Your task to perform on an android device: turn off location history Image 0: 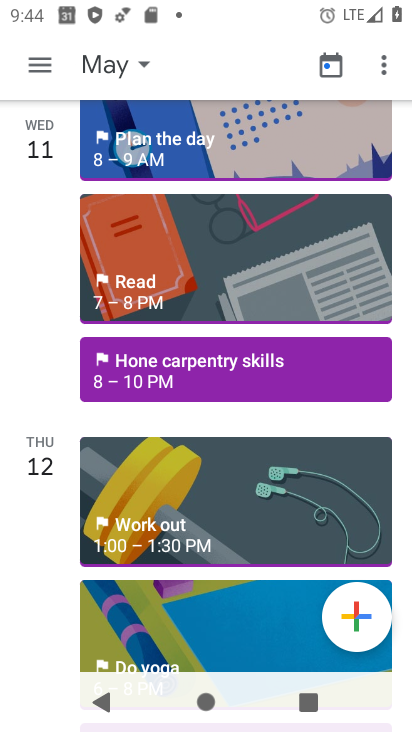
Step 0: press home button
Your task to perform on an android device: turn off location history Image 1: 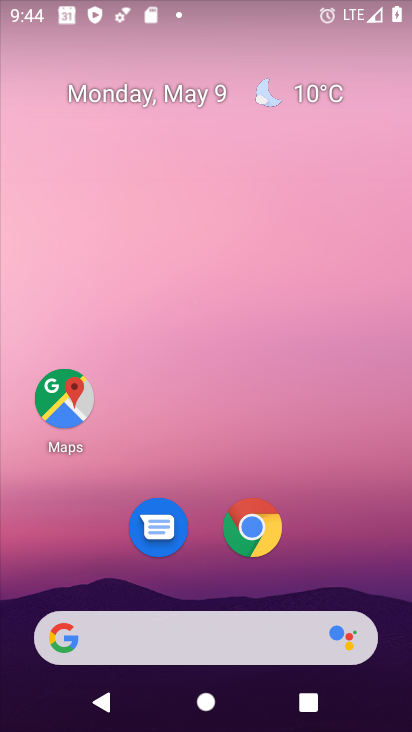
Step 1: click (63, 396)
Your task to perform on an android device: turn off location history Image 2: 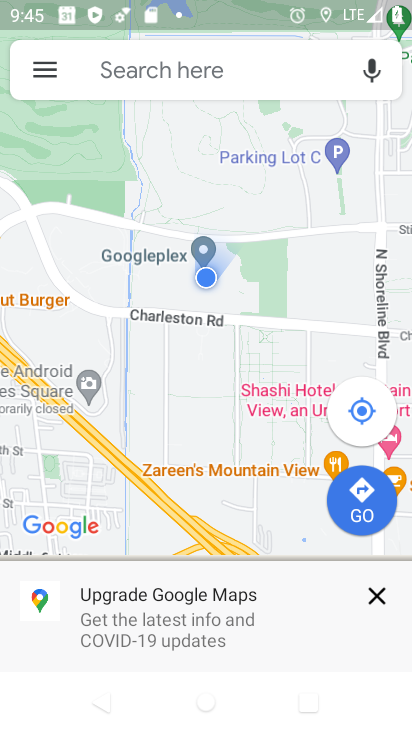
Step 2: click (43, 74)
Your task to perform on an android device: turn off location history Image 3: 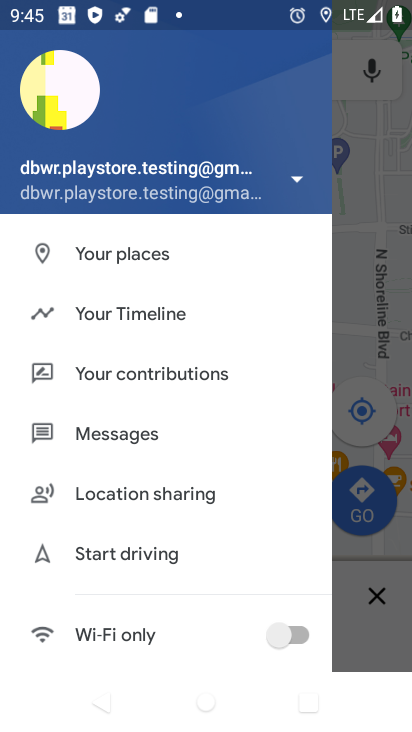
Step 3: drag from (168, 631) to (202, 80)
Your task to perform on an android device: turn off location history Image 4: 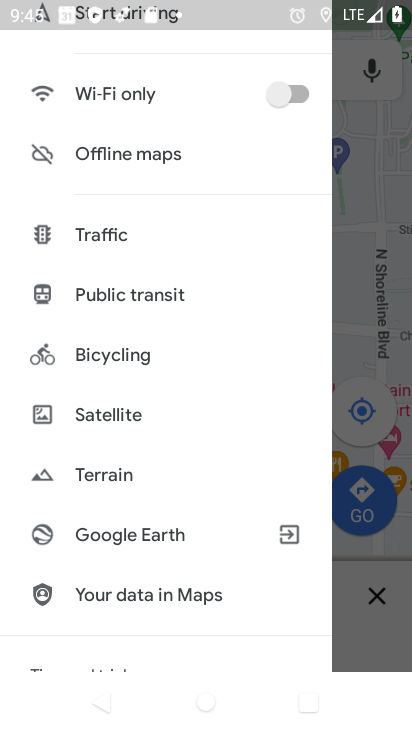
Step 4: drag from (183, 580) to (107, 43)
Your task to perform on an android device: turn off location history Image 5: 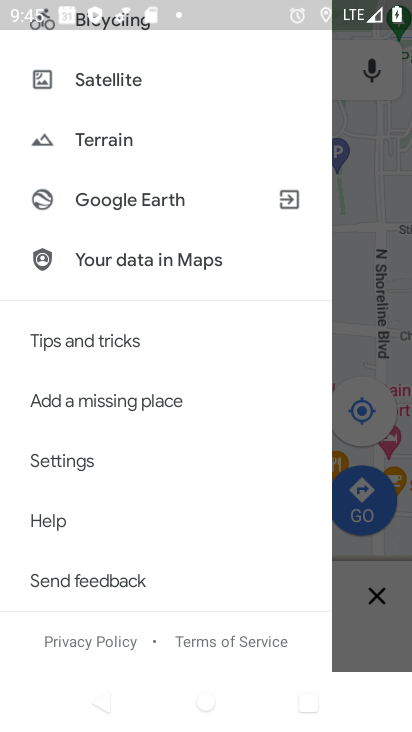
Step 5: click (67, 460)
Your task to perform on an android device: turn off location history Image 6: 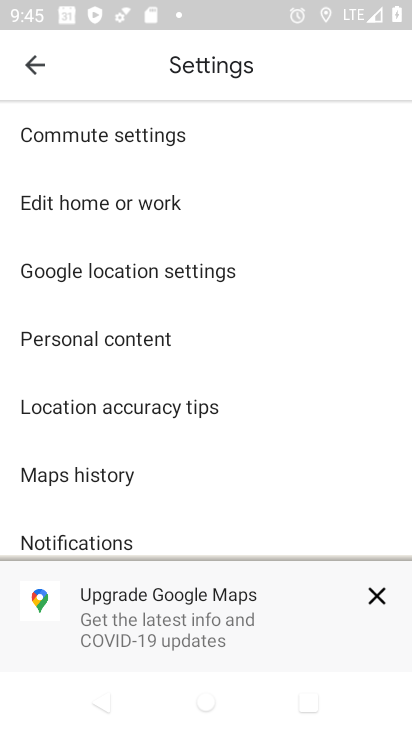
Step 6: click (90, 341)
Your task to perform on an android device: turn off location history Image 7: 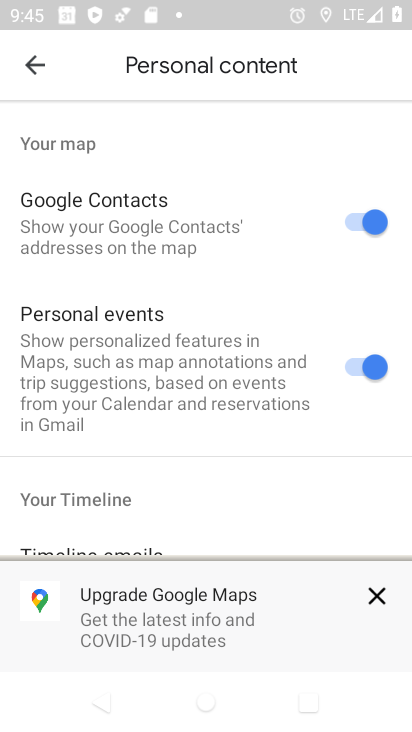
Step 7: task complete